Your task to perform on an android device: open sync settings in chrome Image 0: 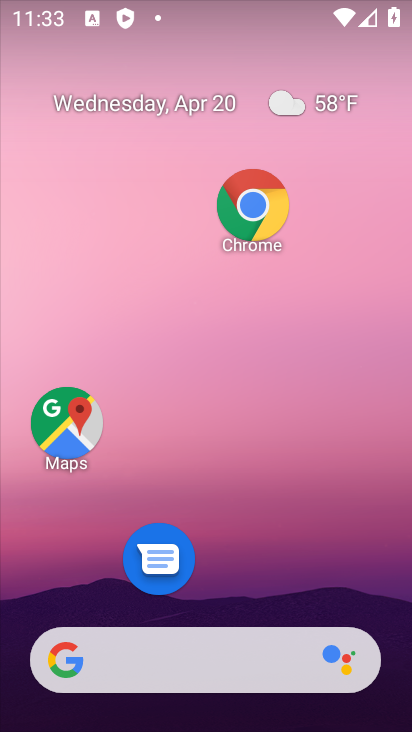
Step 0: drag from (268, 628) to (255, 11)
Your task to perform on an android device: open sync settings in chrome Image 1: 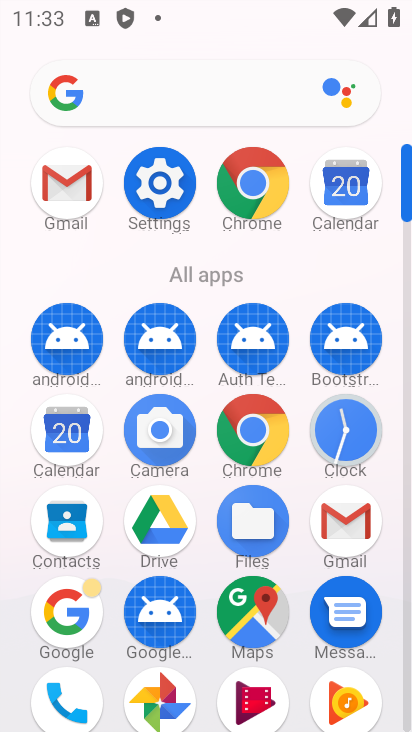
Step 1: click (257, 440)
Your task to perform on an android device: open sync settings in chrome Image 2: 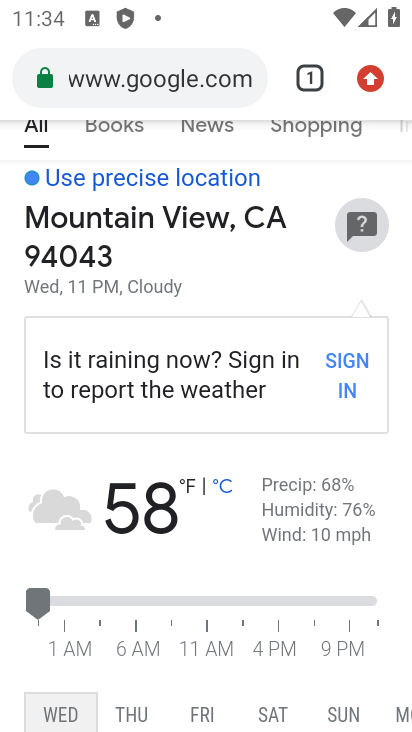
Step 2: drag from (367, 79) to (227, 586)
Your task to perform on an android device: open sync settings in chrome Image 3: 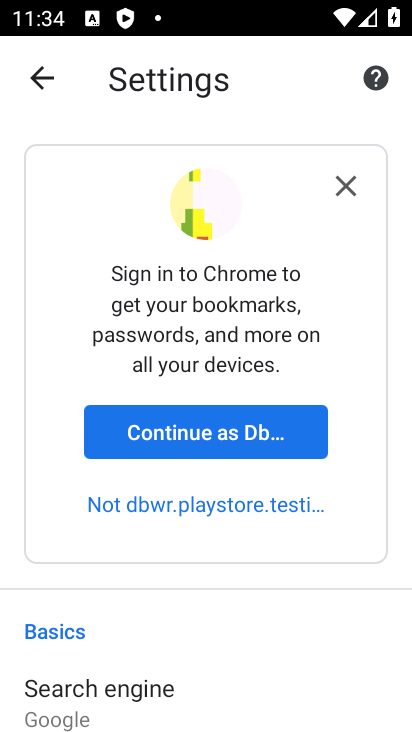
Step 3: drag from (118, 712) to (166, 287)
Your task to perform on an android device: open sync settings in chrome Image 4: 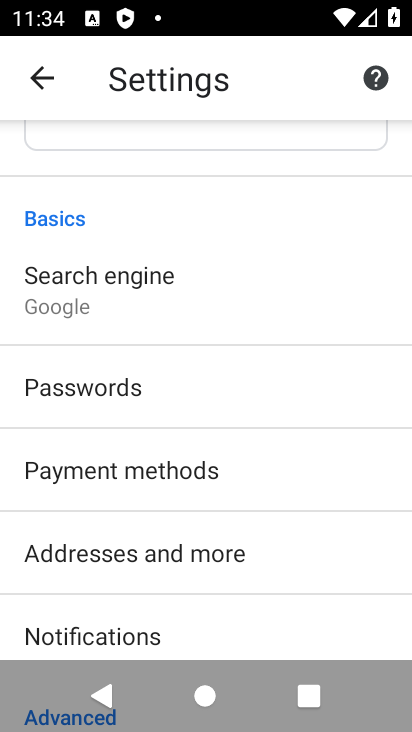
Step 4: drag from (182, 658) to (195, 240)
Your task to perform on an android device: open sync settings in chrome Image 5: 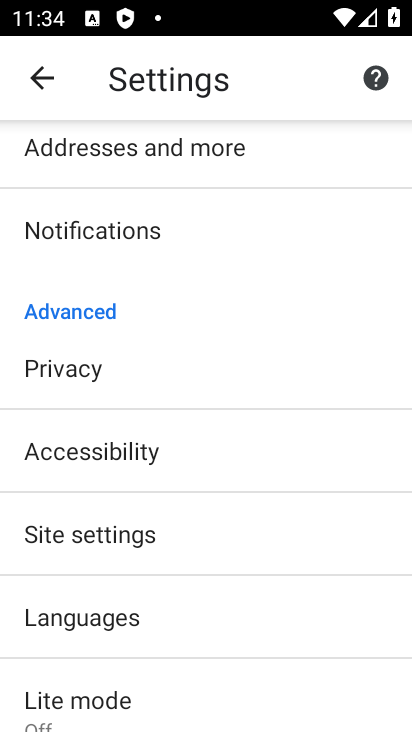
Step 5: click (146, 532)
Your task to perform on an android device: open sync settings in chrome Image 6: 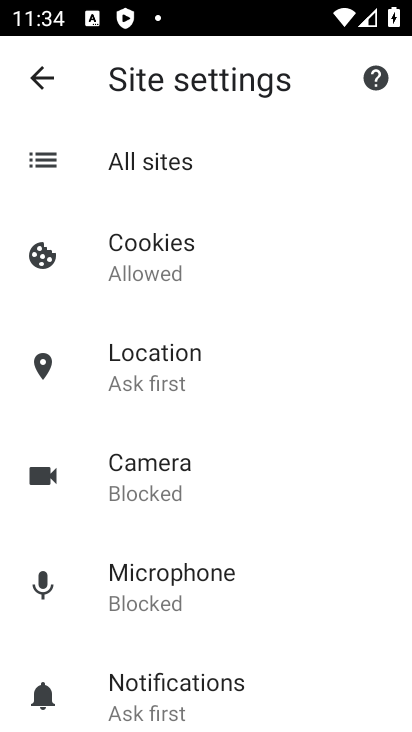
Step 6: drag from (192, 639) to (182, 267)
Your task to perform on an android device: open sync settings in chrome Image 7: 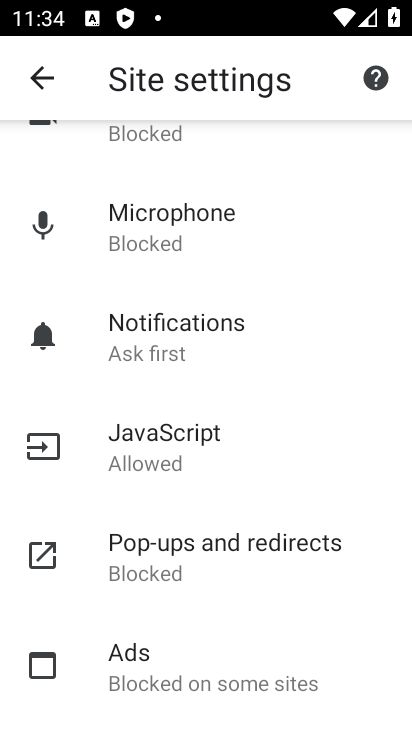
Step 7: drag from (204, 705) to (213, 284)
Your task to perform on an android device: open sync settings in chrome Image 8: 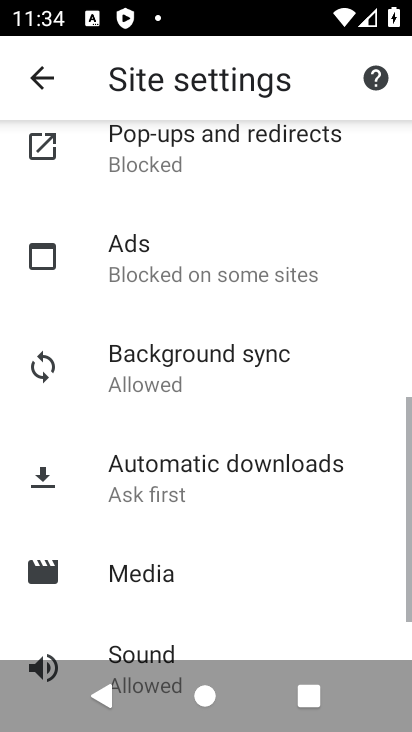
Step 8: click (207, 391)
Your task to perform on an android device: open sync settings in chrome Image 9: 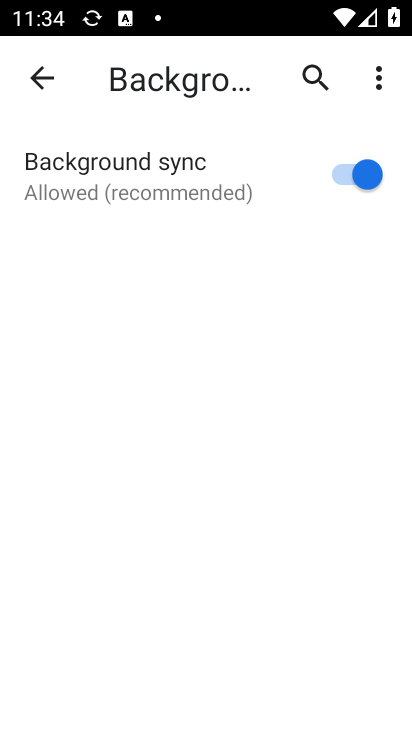
Step 9: task complete